Your task to perform on an android device: check data usage Image 0: 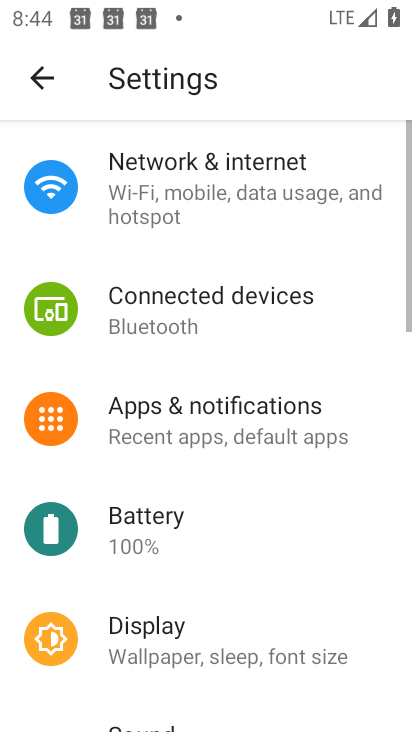
Step 0: press home button
Your task to perform on an android device: check data usage Image 1: 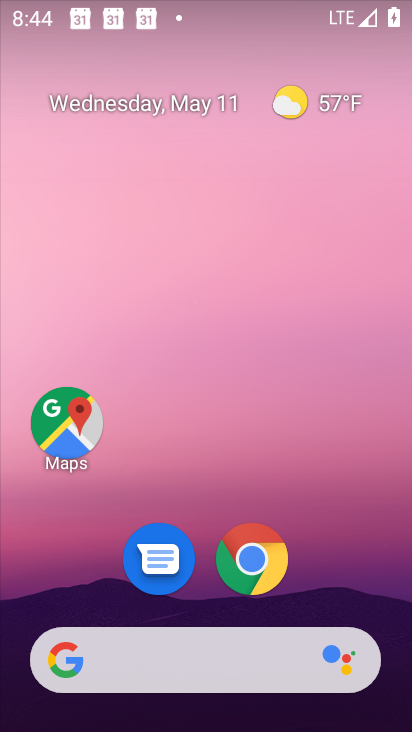
Step 1: drag from (328, 9) to (351, 684)
Your task to perform on an android device: check data usage Image 2: 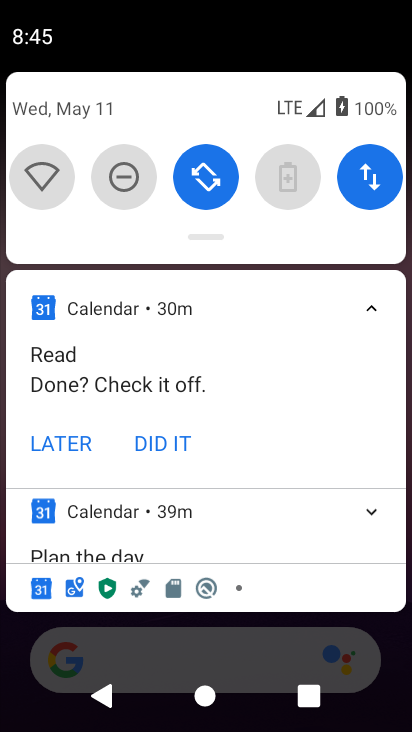
Step 2: click (355, 174)
Your task to perform on an android device: check data usage Image 3: 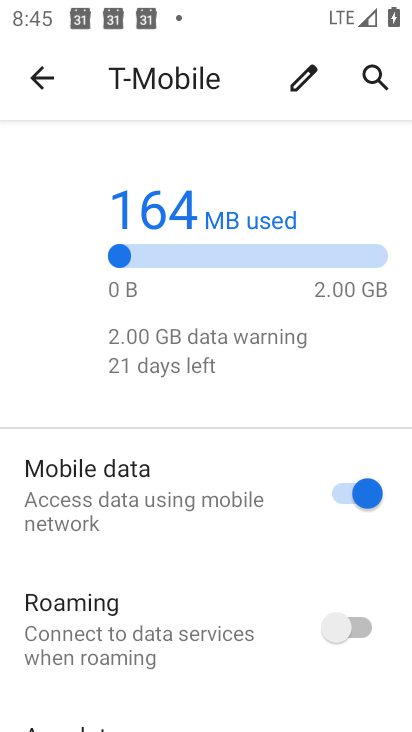
Step 3: task complete